Your task to perform on an android device: refresh tabs in the chrome app Image 0: 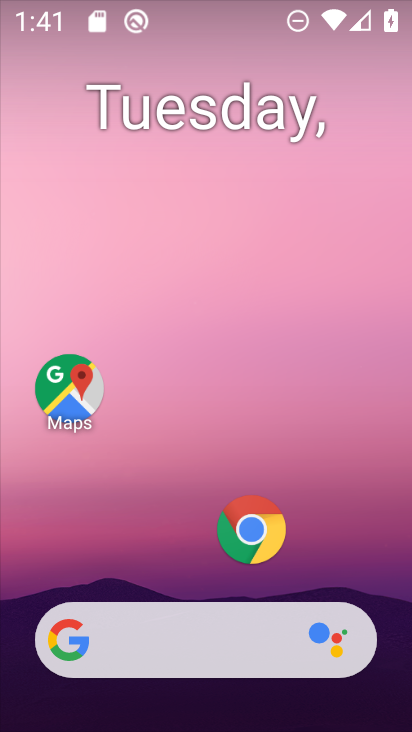
Step 0: drag from (231, 674) to (237, 93)
Your task to perform on an android device: refresh tabs in the chrome app Image 1: 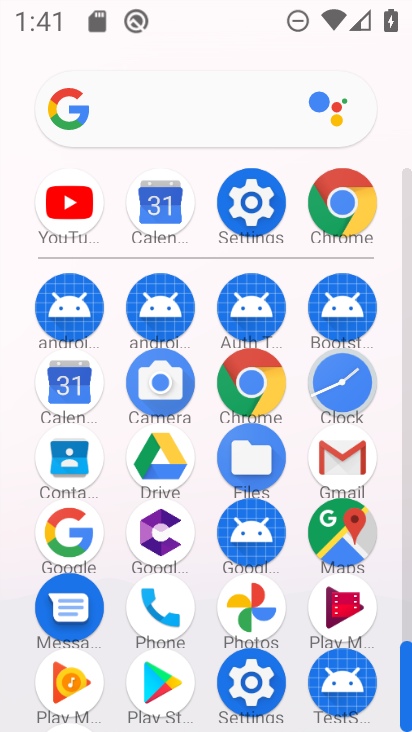
Step 1: click (338, 204)
Your task to perform on an android device: refresh tabs in the chrome app Image 2: 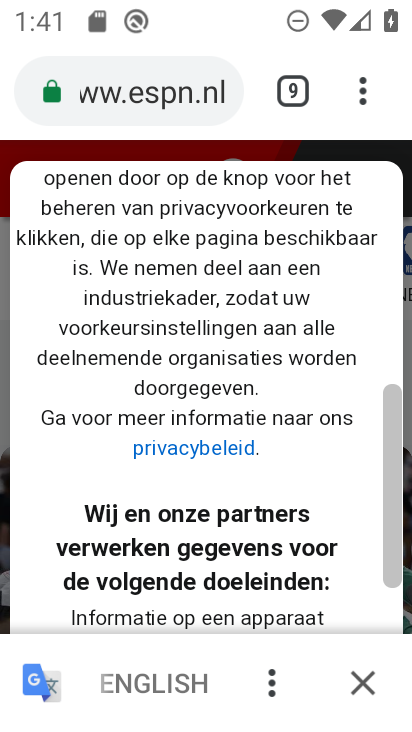
Step 2: click (361, 93)
Your task to perform on an android device: refresh tabs in the chrome app Image 3: 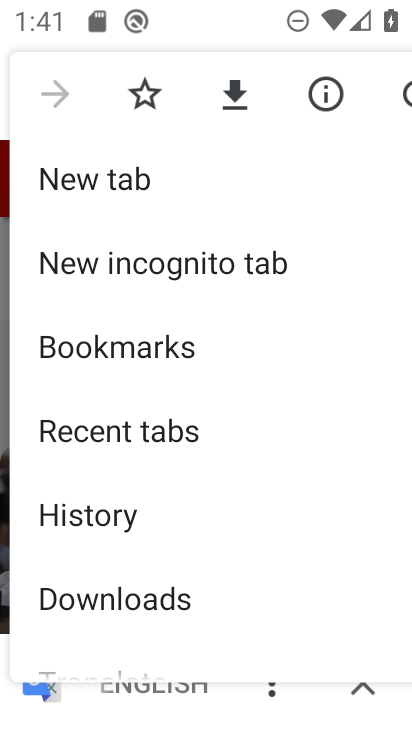
Step 3: click (406, 86)
Your task to perform on an android device: refresh tabs in the chrome app Image 4: 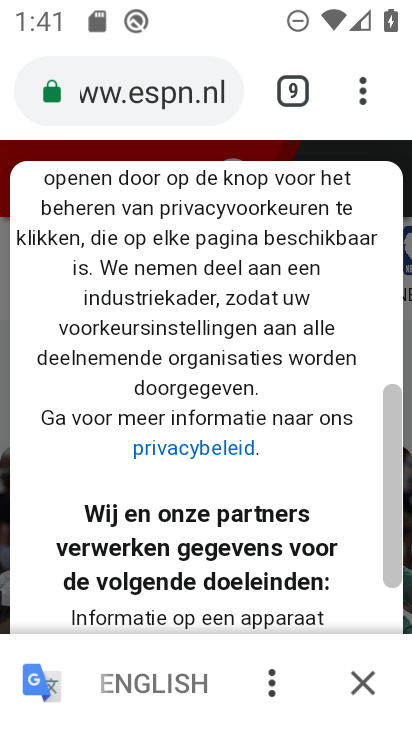
Step 4: task complete